Your task to perform on an android device: Open Android settings Image 0: 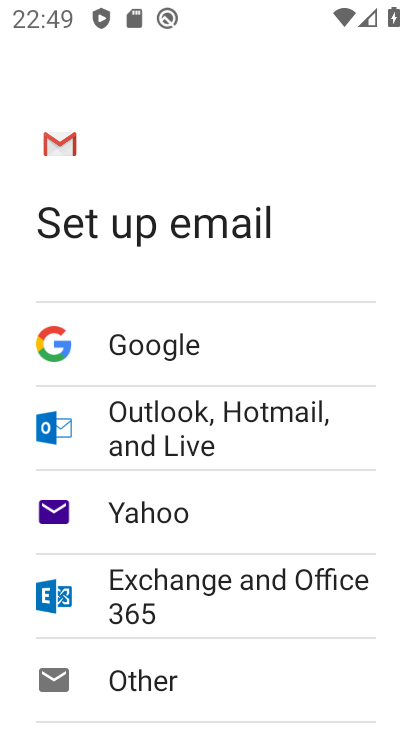
Step 0: press home button
Your task to perform on an android device: Open Android settings Image 1: 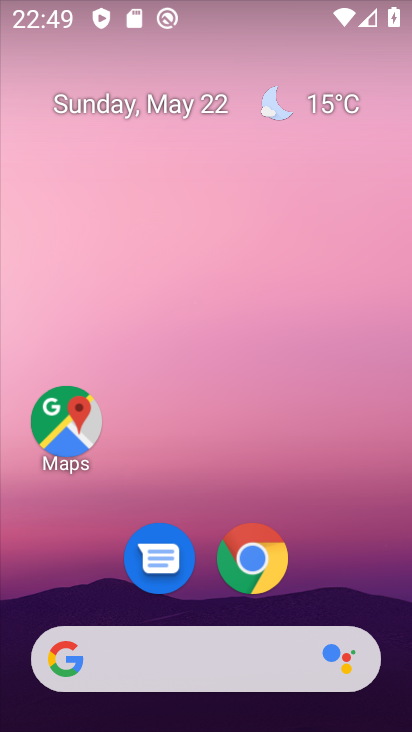
Step 1: drag from (349, 171) to (333, 49)
Your task to perform on an android device: Open Android settings Image 2: 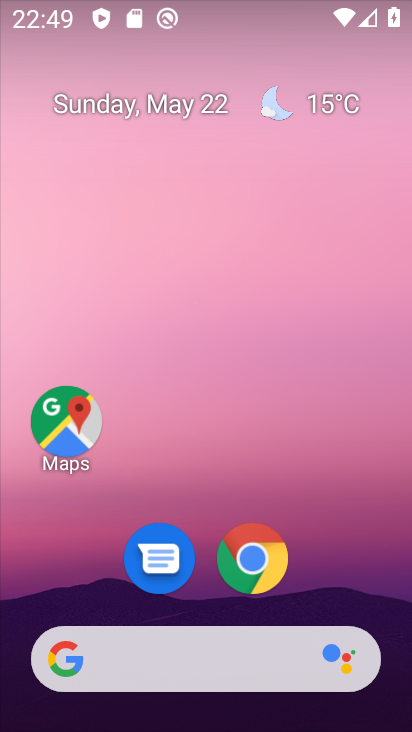
Step 2: drag from (351, 610) to (373, 405)
Your task to perform on an android device: Open Android settings Image 3: 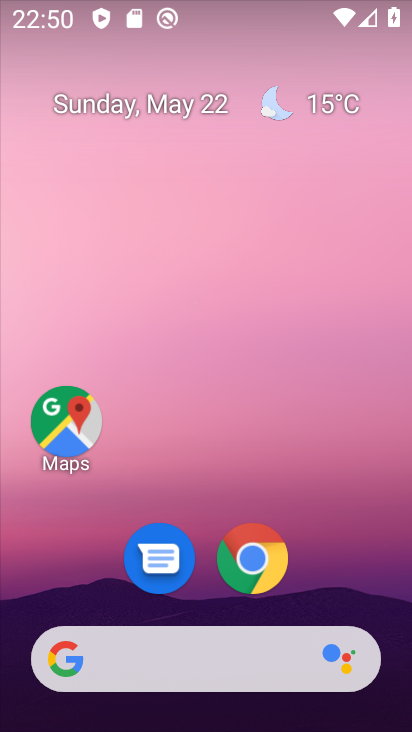
Step 3: drag from (348, 606) to (299, 8)
Your task to perform on an android device: Open Android settings Image 4: 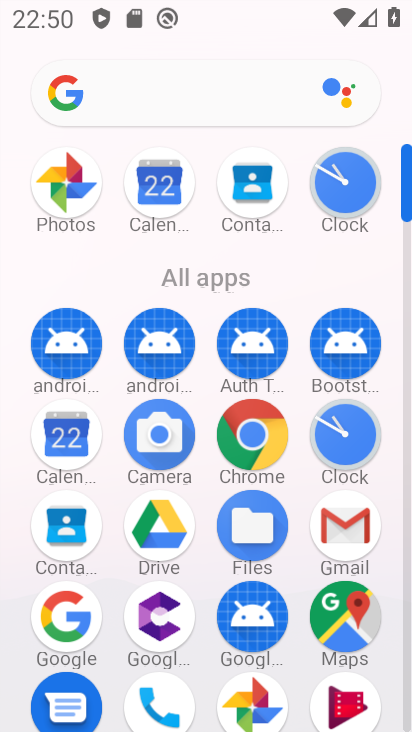
Step 4: click (410, 498)
Your task to perform on an android device: Open Android settings Image 5: 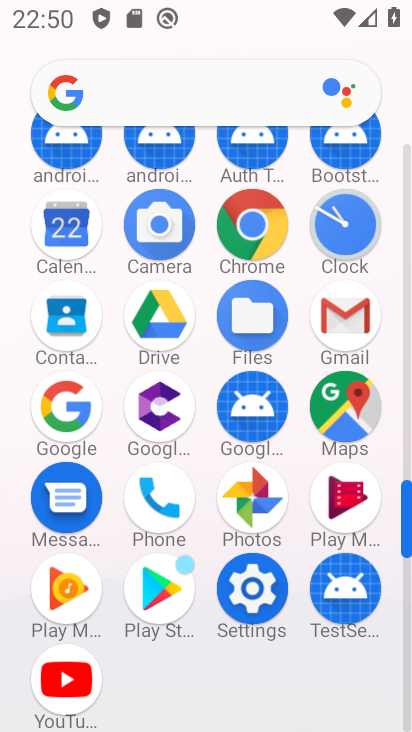
Step 5: click (250, 591)
Your task to perform on an android device: Open Android settings Image 6: 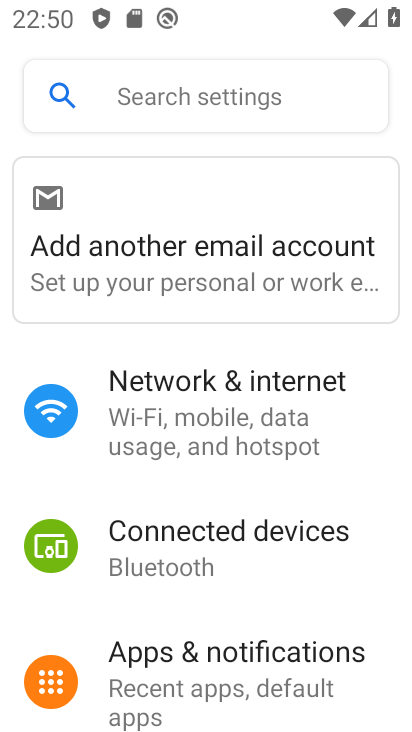
Step 6: task complete